Your task to perform on an android device: change your default location settings in chrome Image 0: 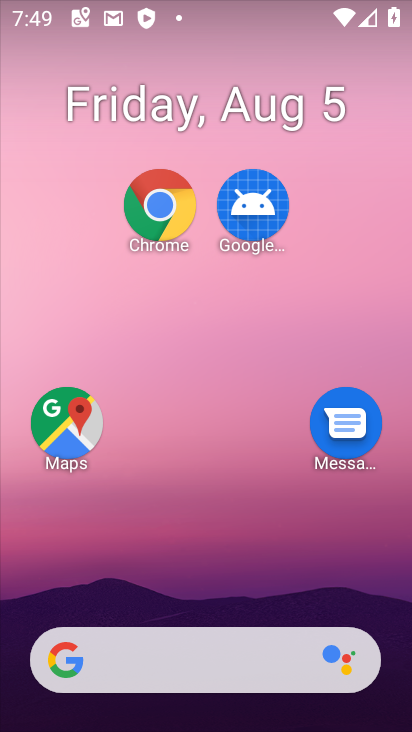
Step 0: click (156, 212)
Your task to perform on an android device: change your default location settings in chrome Image 1: 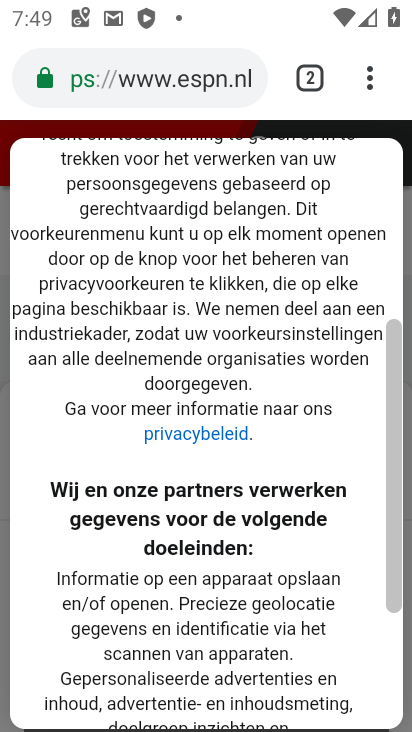
Step 1: click (381, 67)
Your task to perform on an android device: change your default location settings in chrome Image 2: 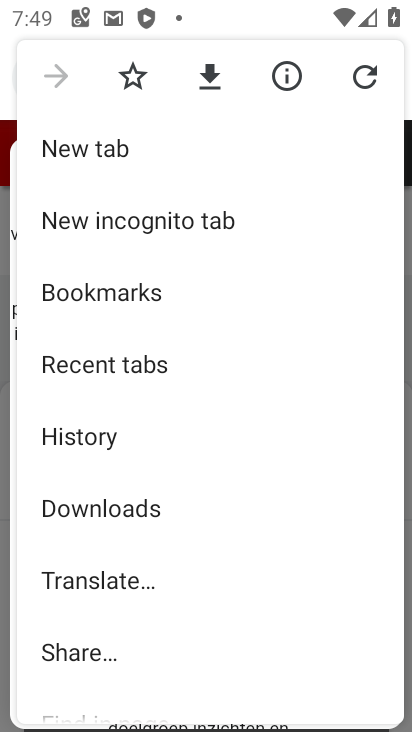
Step 2: drag from (219, 453) to (195, 234)
Your task to perform on an android device: change your default location settings in chrome Image 3: 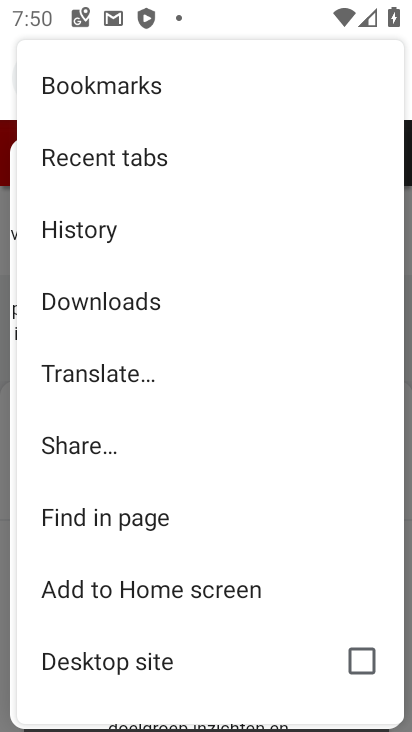
Step 3: drag from (163, 422) to (165, 0)
Your task to perform on an android device: change your default location settings in chrome Image 4: 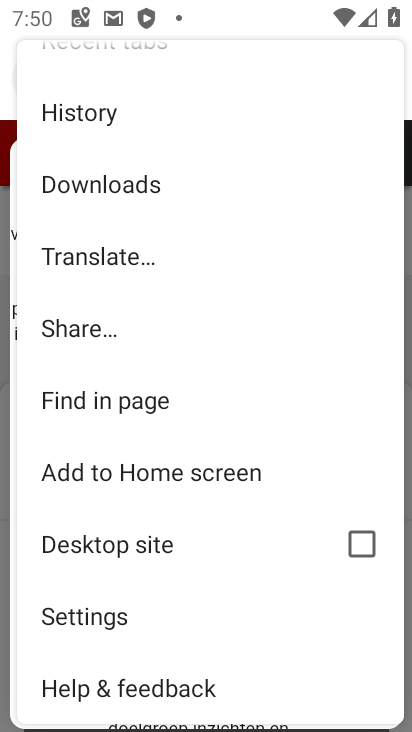
Step 4: click (89, 629)
Your task to perform on an android device: change your default location settings in chrome Image 5: 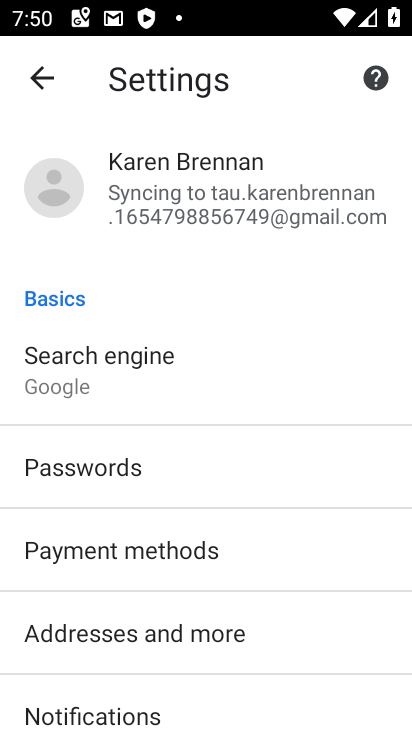
Step 5: drag from (144, 589) to (123, 10)
Your task to perform on an android device: change your default location settings in chrome Image 6: 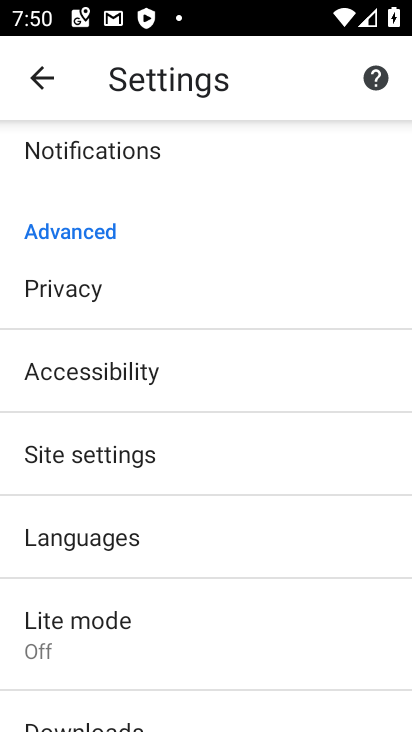
Step 6: click (112, 492)
Your task to perform on an android device: change your default location settings in chrome Image 7: 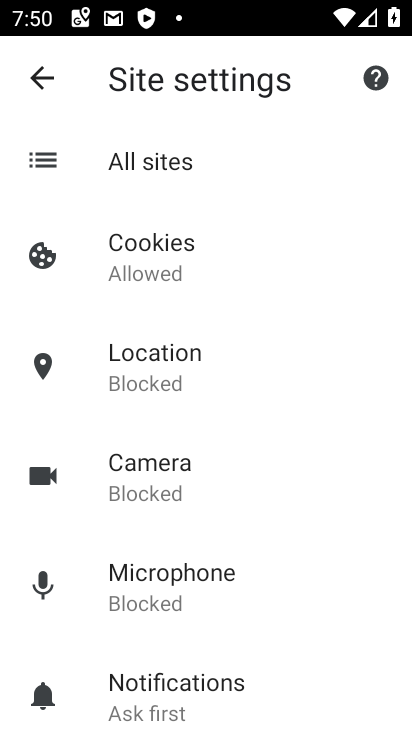
Step 7: click (108, 359)
Your task to perform on an android device: change your default location settings in chrome Image 8: 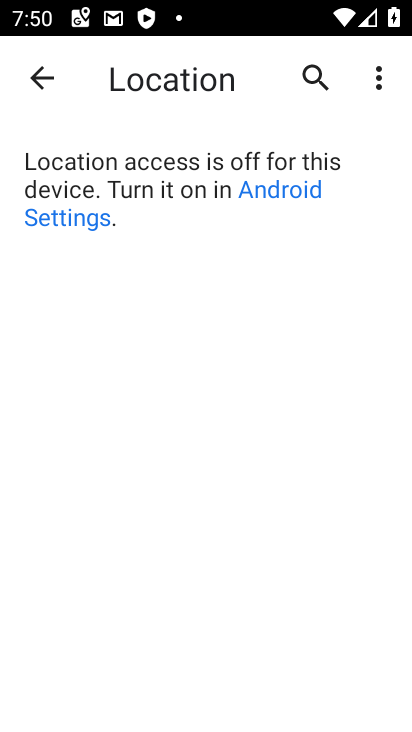
Step 8: task complete